Your task to perform on an android device: open chrome and create a bookmark for the current page Image 0: 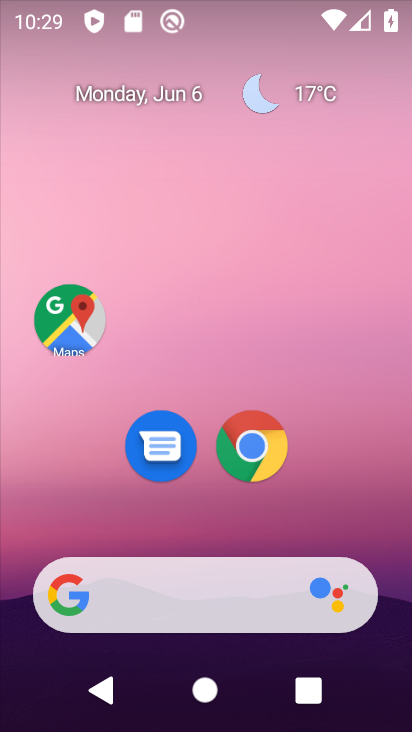
Step 0: drag from (333, 534) to (249, 4)
Your task to perform on an android device: open chrome and create a bookmark for the current page Image 1: 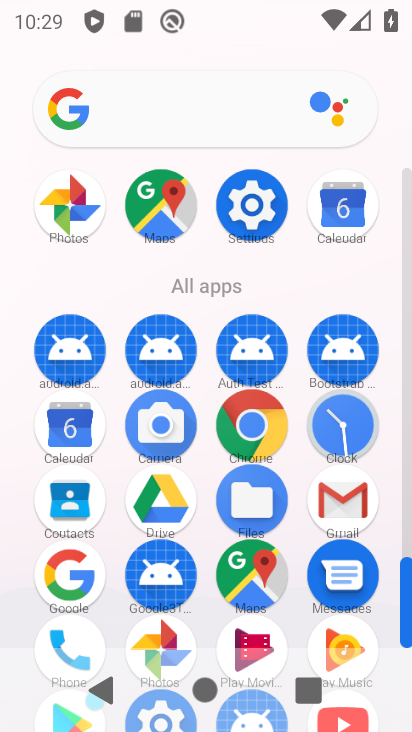
Step 1: click (246, 422)
Your task to perform on an android device: open chrome and create a bookmark for the current page Image 2: 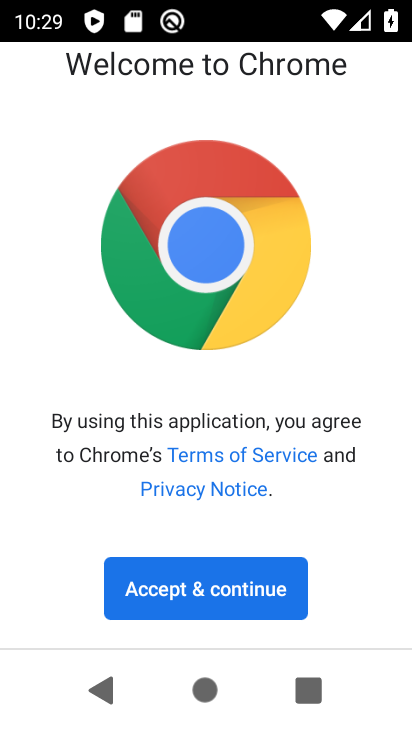
Step 2: click (185, 593)
Your task to perform on an android device: open chrome and create a bookmark for the current page Image 3: 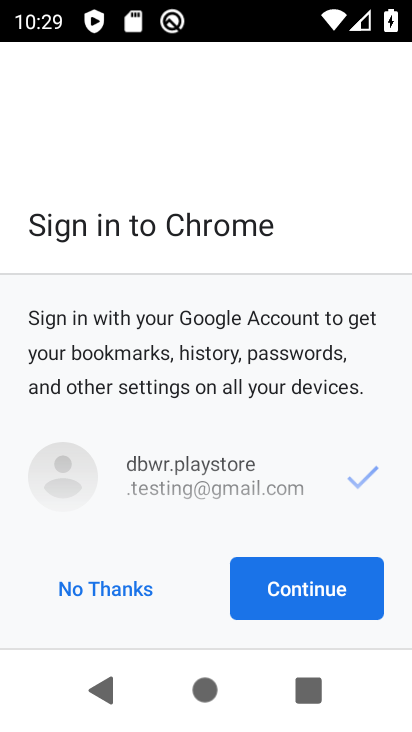
Step 3: click (311, 572)
Your task to perform on an android device: open chrome and create a bookmark for the current page Image 4: 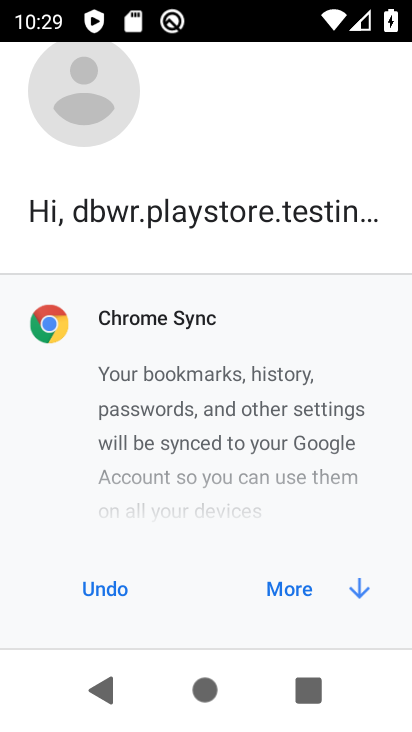
Step 4: click (308, 587)
Your task to perform on an android device: open chrome and create a bookmark for the current page Image 5: 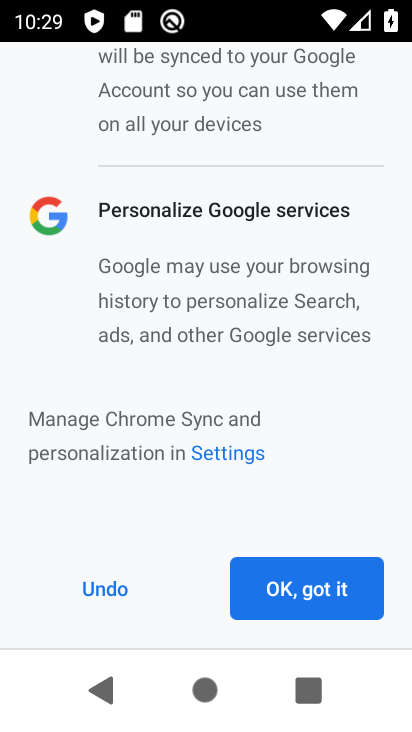
Step 5: click (312, 592)
Your task to perform on an android device: open chrome and create a bookmark for the current page Image 6: 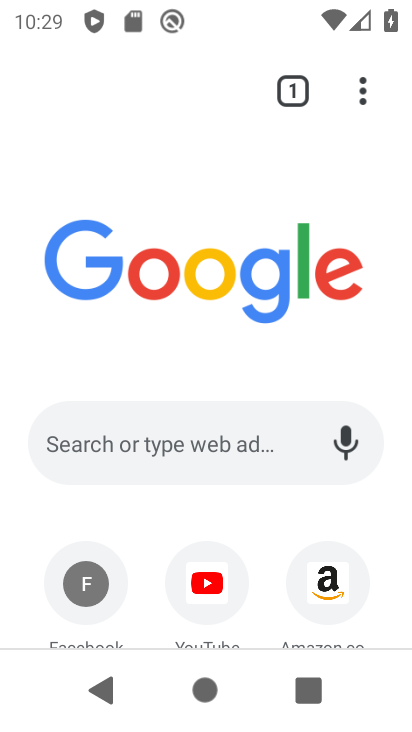
Step 6: task complete